Your task to perform on an android device: Go to network settings Image 0: 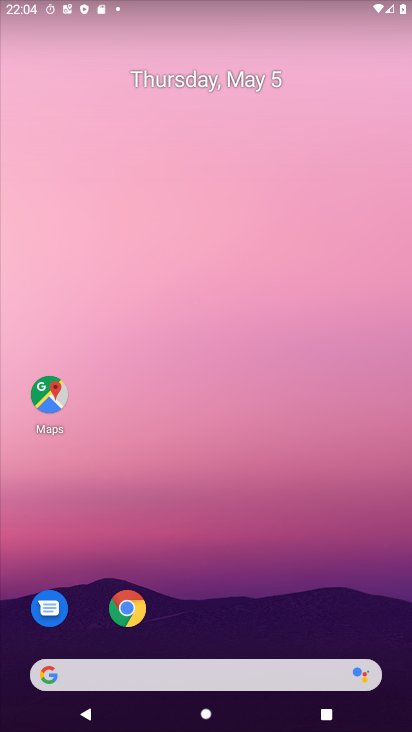
Step 0: drag from (331, 684) to (326, 122)
Your task to perform on an android device: Go to network settings Image 1: 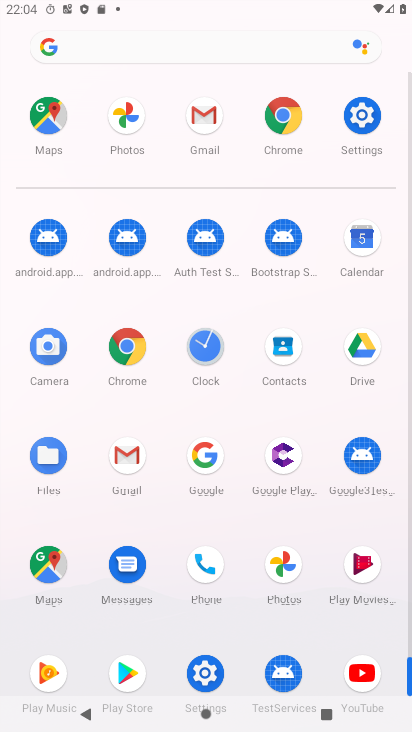
Step 1: click (360, 111)
Your task to perform on an android device: Go to network settings Image 2: 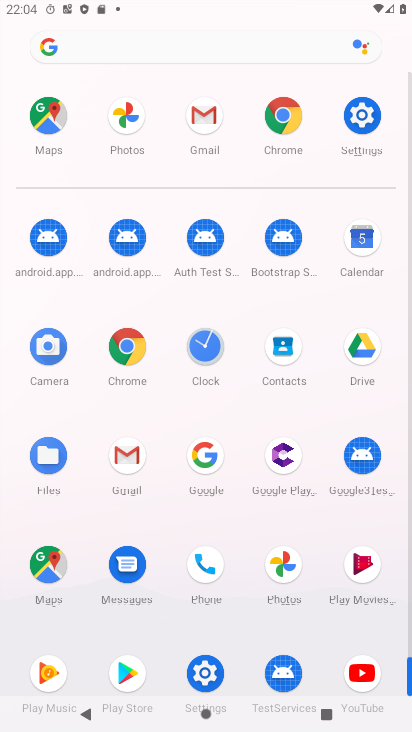
Step 2: click (358, 113)
Your task to perform on an android device: Go to network settings Image 3: 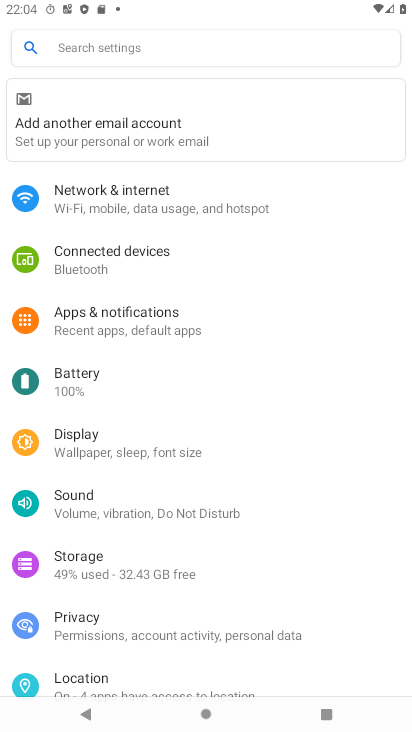
Step 3: drag from (305, 677) to (244, 637)
Your task to perform on an android device: Go to network settings Image 4: 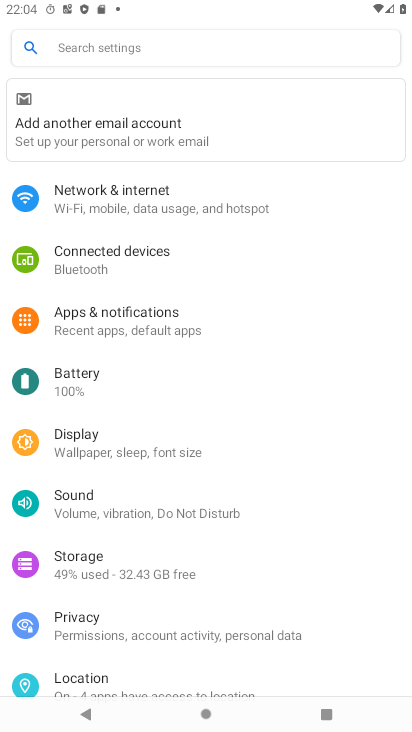
Step 4: click (111, 201)
Your task to perform on an android device: Go to network settings Image 5: 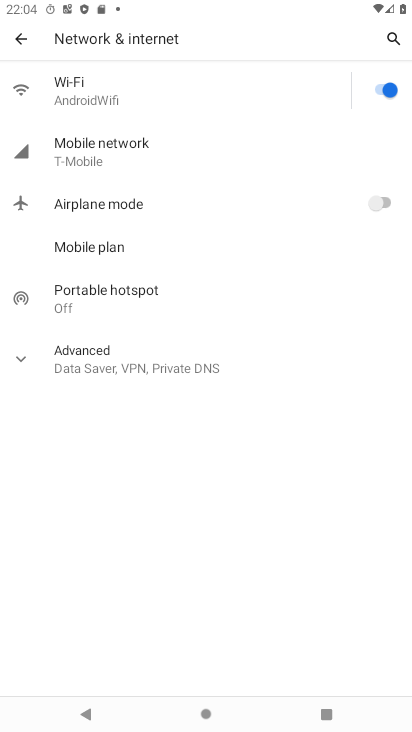
Step 5: click (170, 160)
Your task to perform on an android device: Go to network settings Image 6: 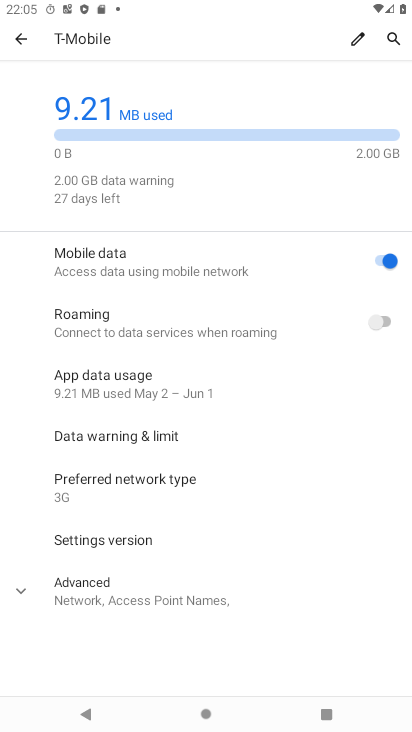
Step 6: task complete